Your task to perform on an android device: check the backup settings in the google photos Image 0: 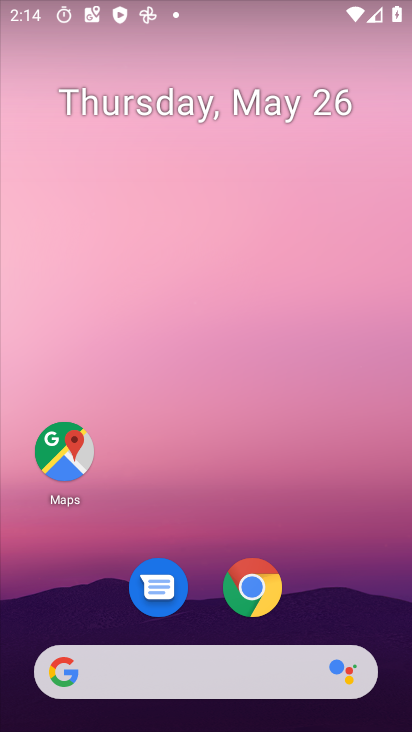
Step 0: drag from (388, 610) to (389, 162)
Your task to perform on an android device: check the backup settings in the google photos Image 1: 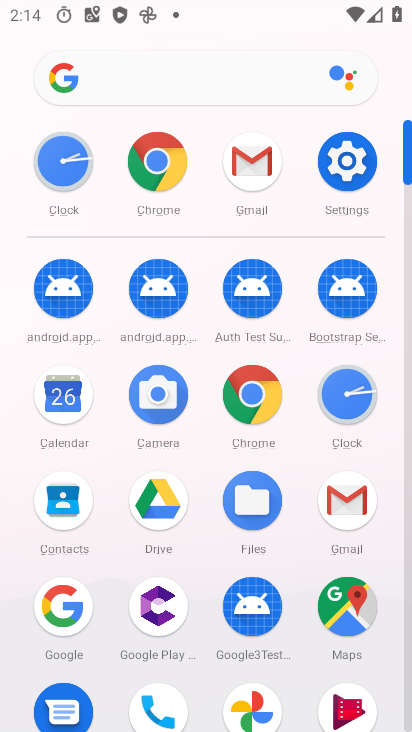
Step 1: drag from (392, 558) to (391, 279)
Your task to perform on an android device: check the backup settings in the google photos Image 2: 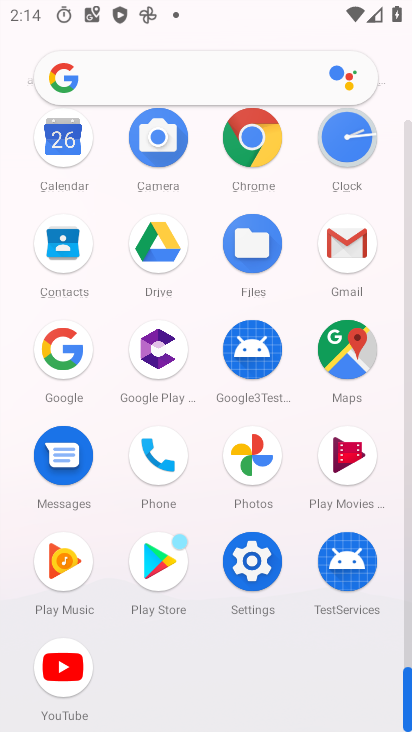
Step 2: click (266, 461)
Your task to perform on an android device: check the backup settings in the google photos Image 3: 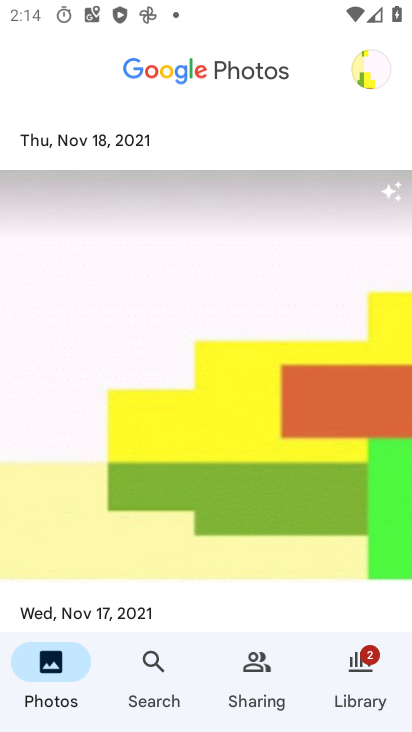
Step 3: click (371, 68)
Your task to perform on an android device: check the backup settings in the google photos Image 4: 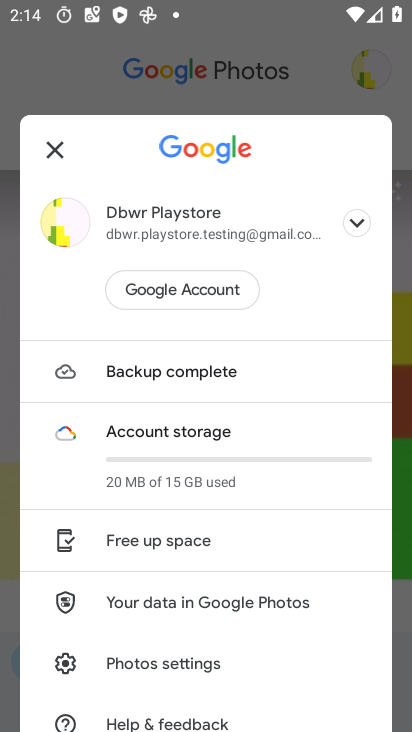
Step 4: drag from (299, 623) to (302, 443)
Your task to perform on an android device: check the backup settings in the google photos Image 5: 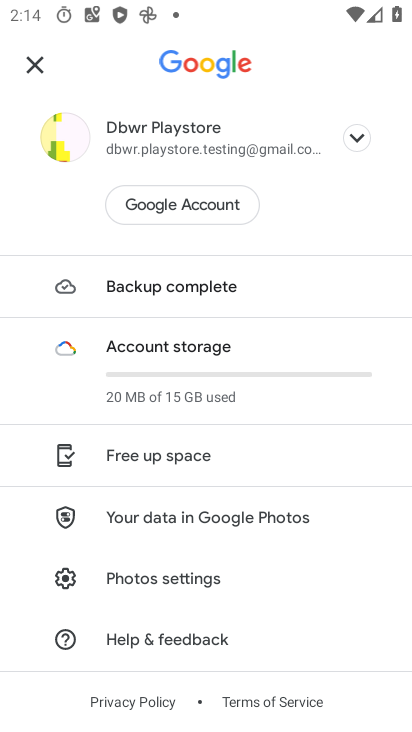
Step 5: click (193, 584)
Your task to perform on an android device: check the backup settings in the google photos Image 6: 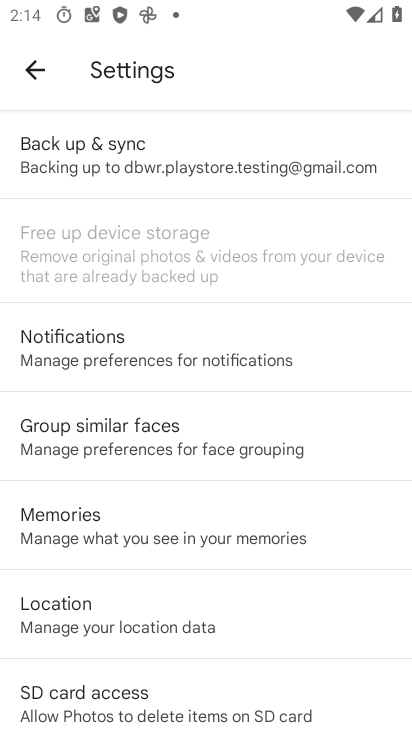
Step 6: click (324, 163)
Your task to perform on an android device: check the backup settings in the google photos Image 7: 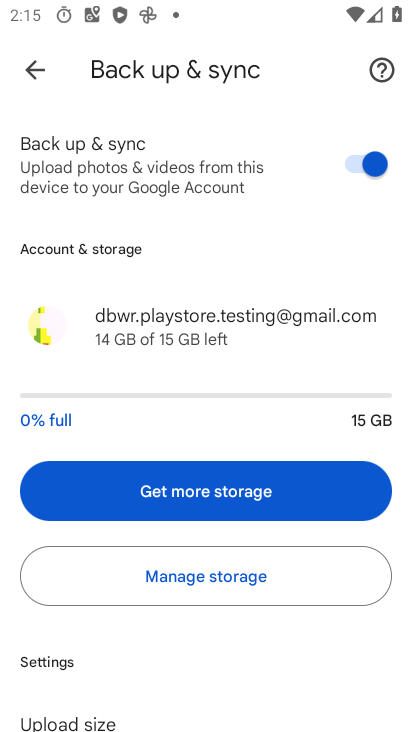
Step 7: task complete